Your task to perform on an android device: turn off location history Image 0: 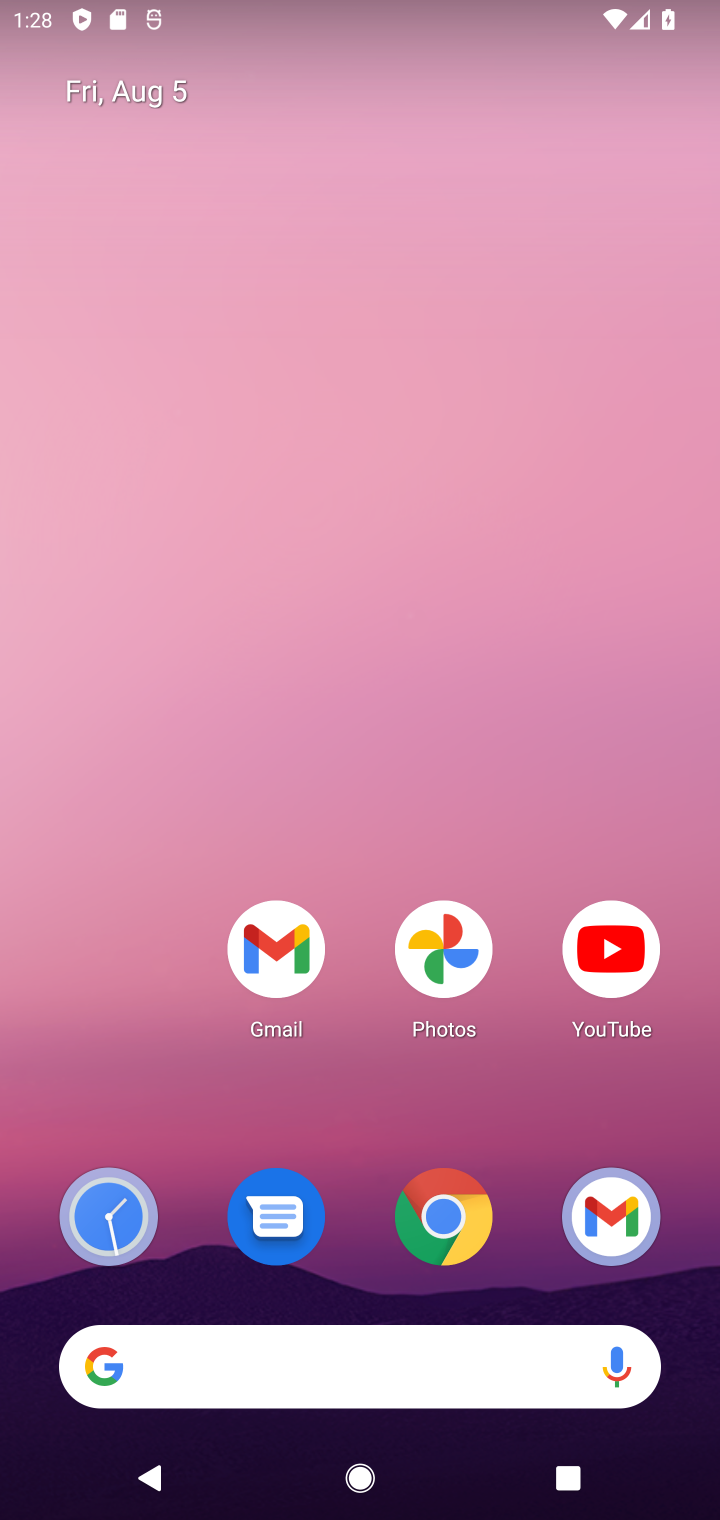
Step 0: drag from (223, 1072) to (275, 87)
Your task to perform on an android device: turn off location history Image 1: 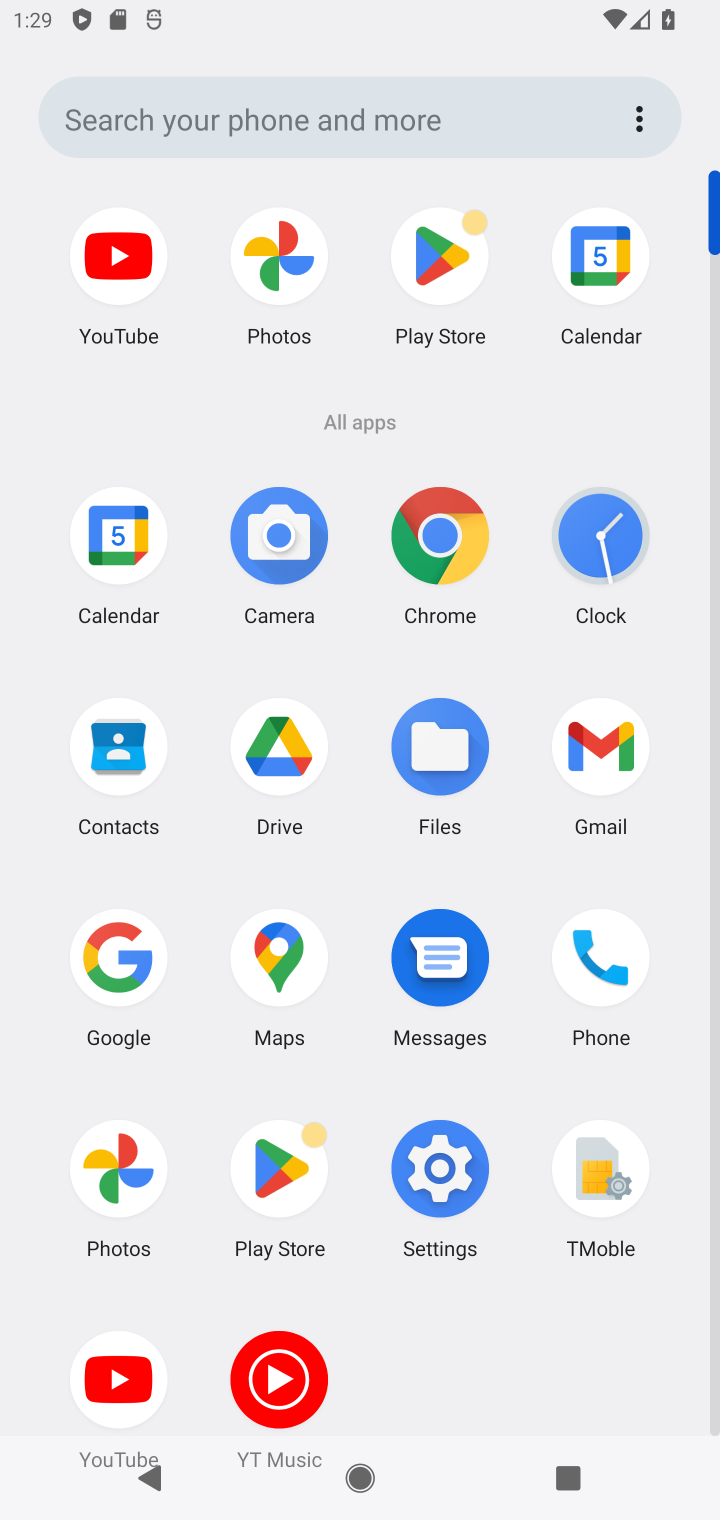
Step 1: click (308, 959)
Your task to perform on an android device: turn off location history Image 2: 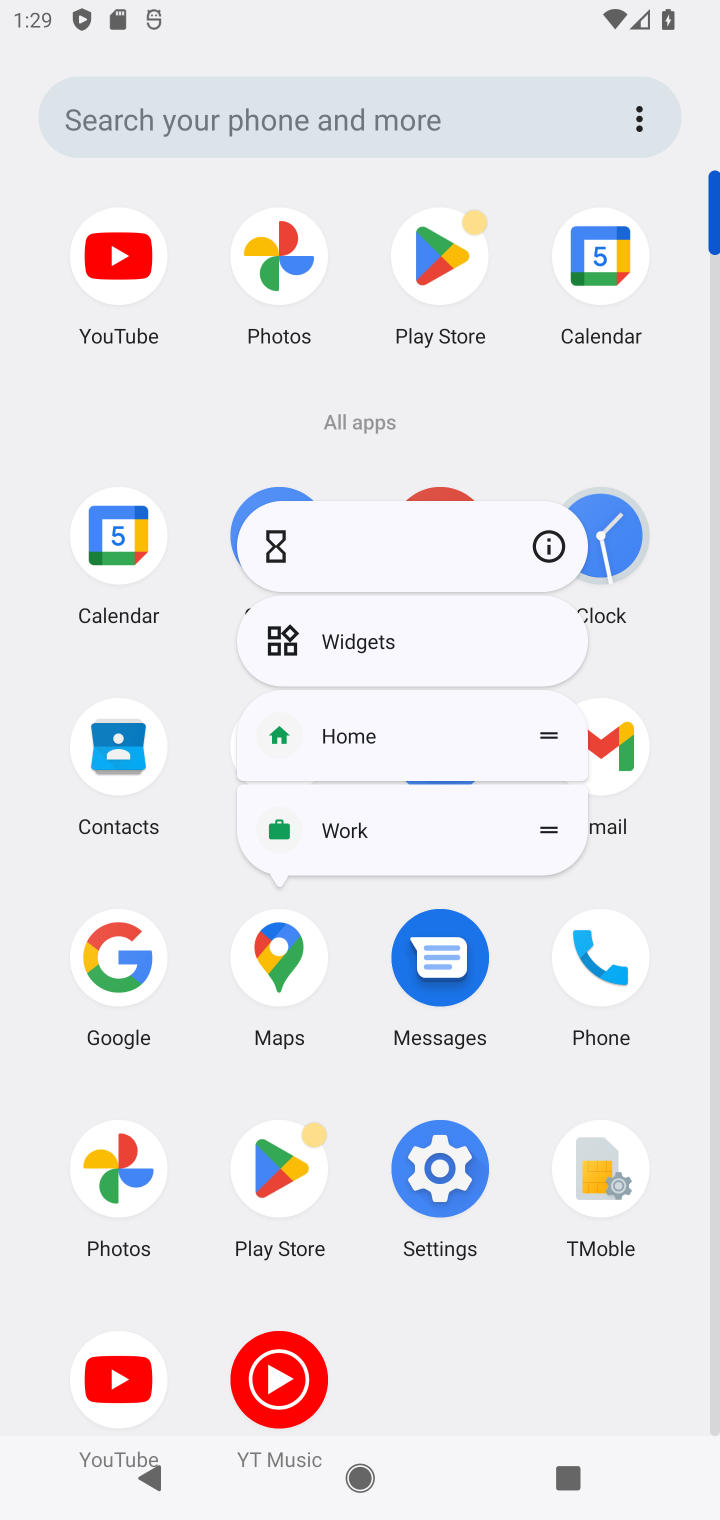
Step 2: click (291, 962)
Your task to perform on an android device: turn off location history Image 3: 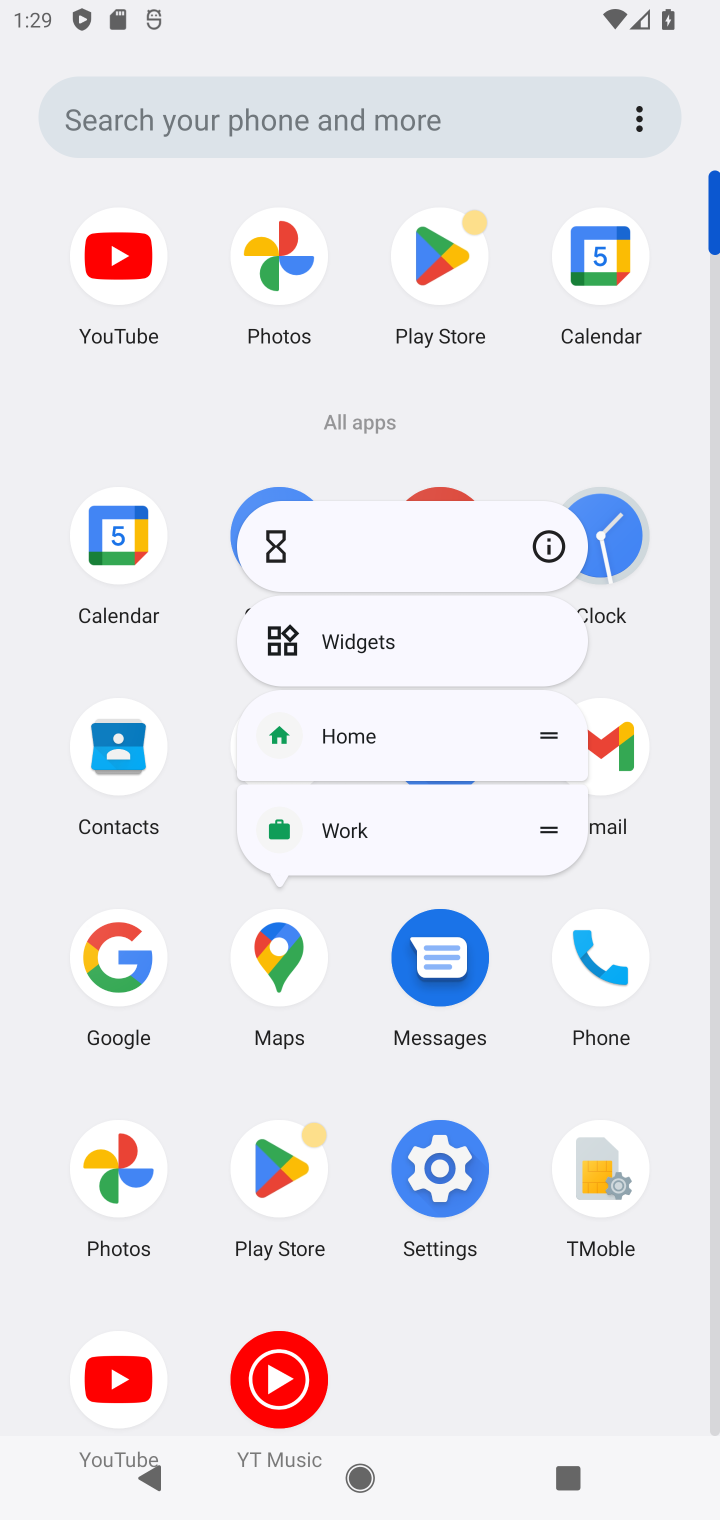
Step 3: click (291, 962)
Your task to perform on an android device: turn off location history Image 4: 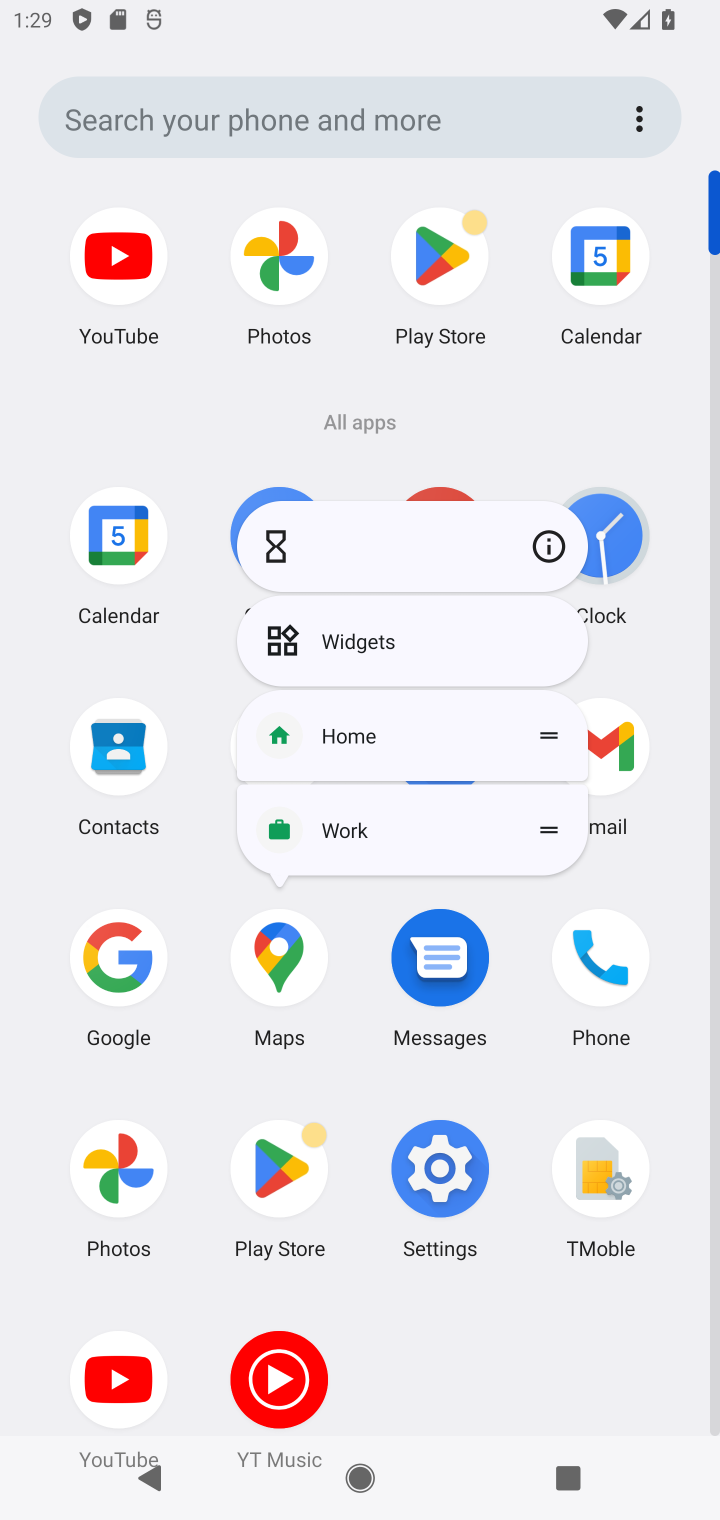
Step 4: click (291, 962)
Your task to perform on an android device: turn off location history Image 5: 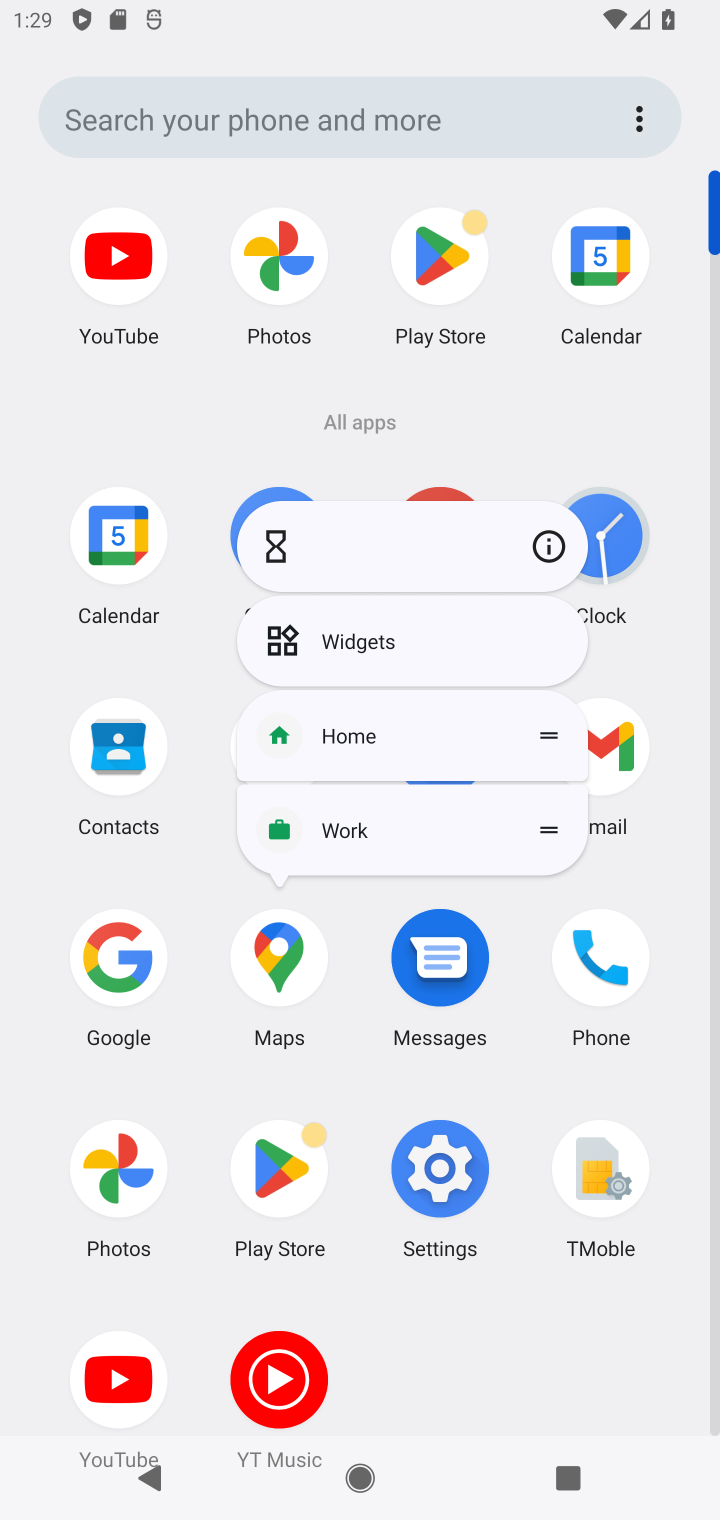
Step 5: click (291, 1023)
Your task to perform on an android device: turn off location history Image 6: 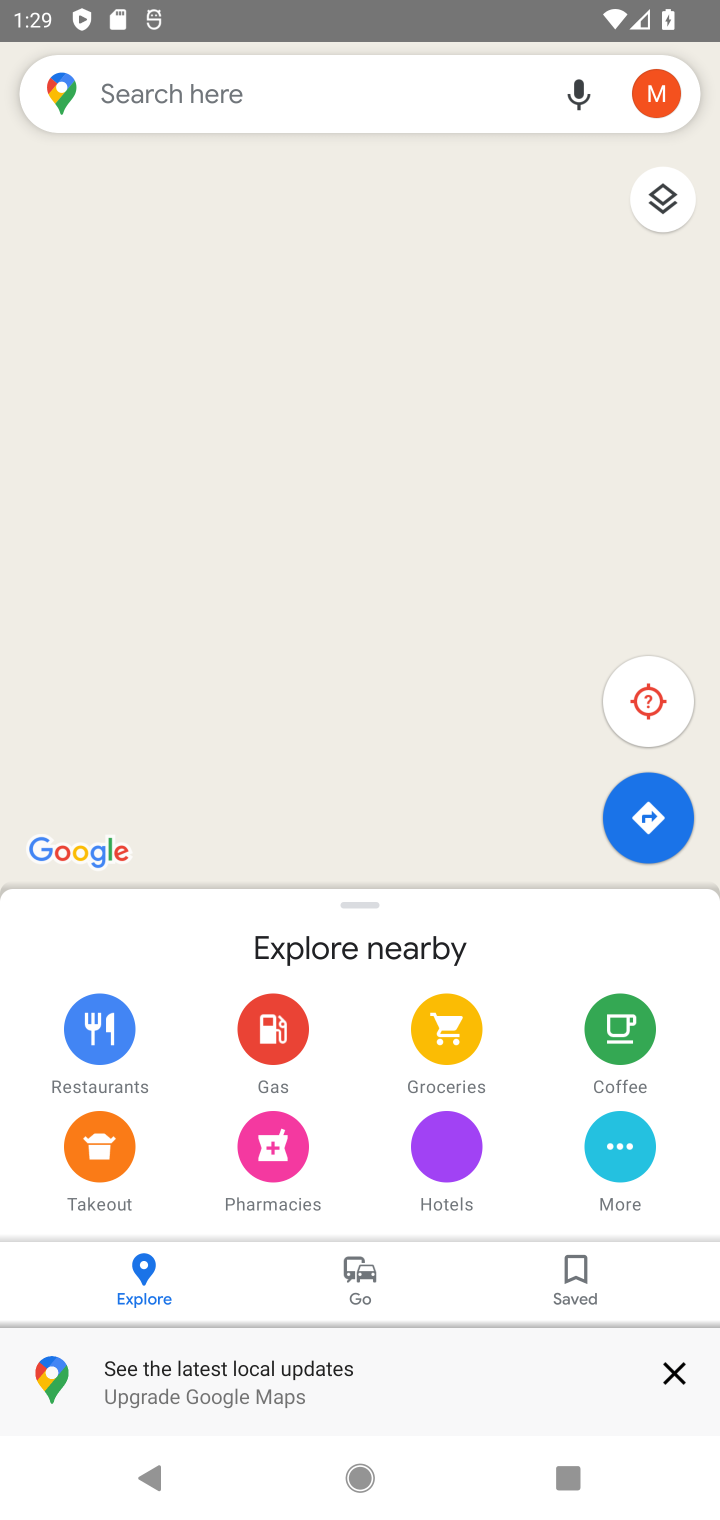
Step 6: click (68, 92)
Your task to perform on an android device: turn off location history Image 7: 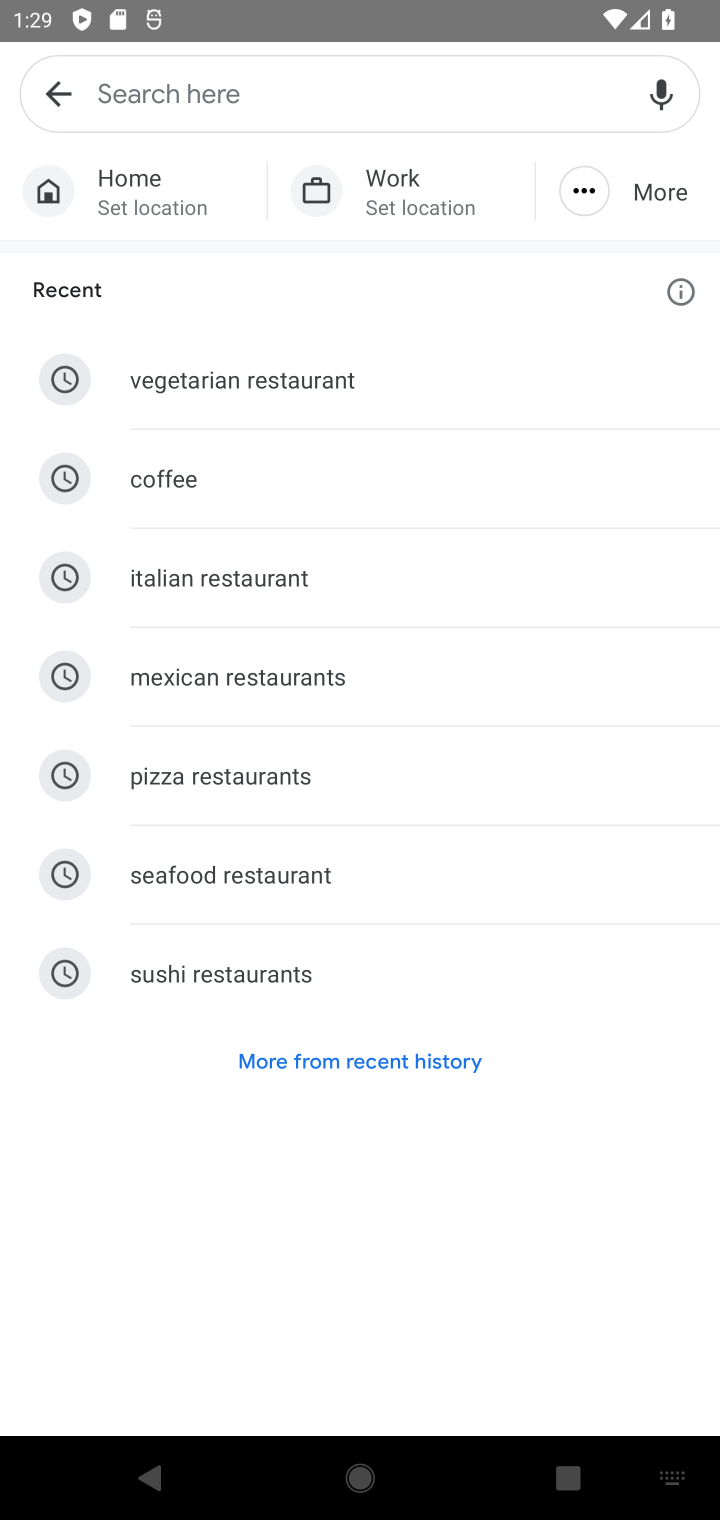
Step 7: task complete